Your task to perform on an android device: See recent photos Image 0: 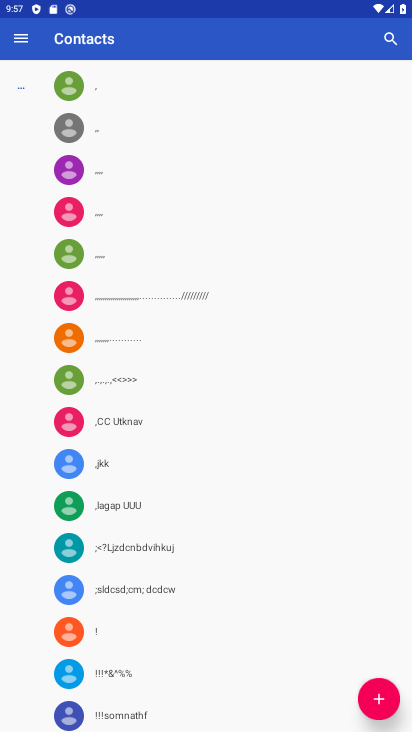
Step 0: press home button
Your task to perform on an android device: See recent photos Image 1: 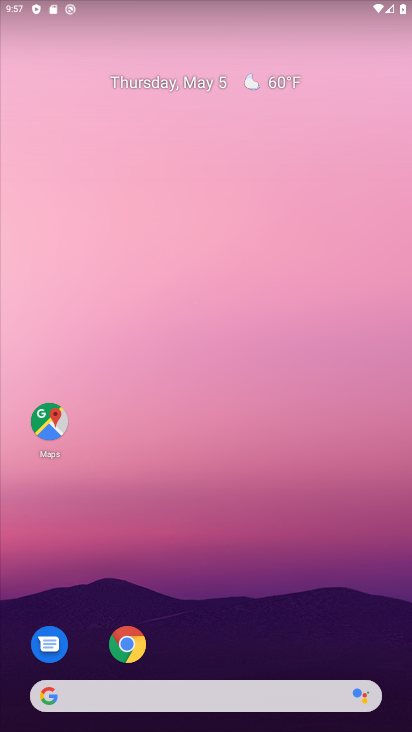
Step 1: drag from (392, 640) to (324, 147)
Your task to perform on an android device: See recent photos Image 2: 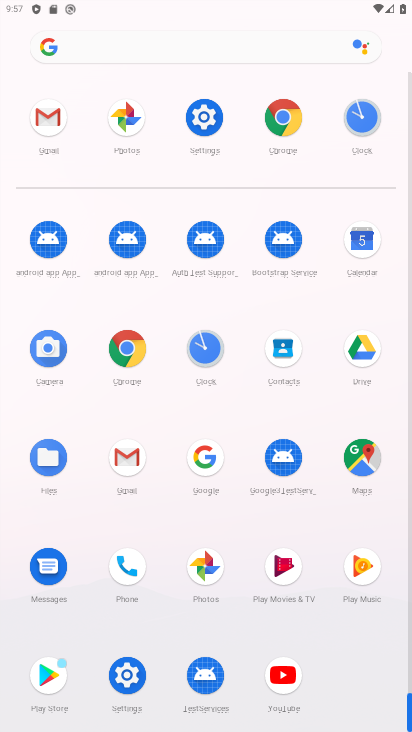
Step 2: click (211, 569)
Your task to perform on an android device: See recent photos Image 3: 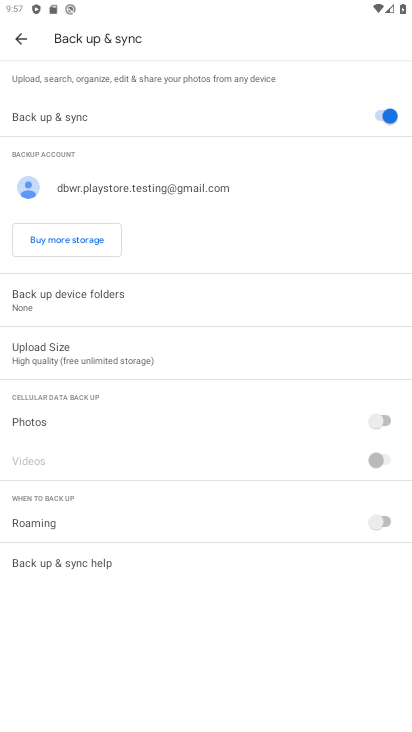
Step 3: click (15, 39)
Your task to perform on an android device: See recent photos Image 4: 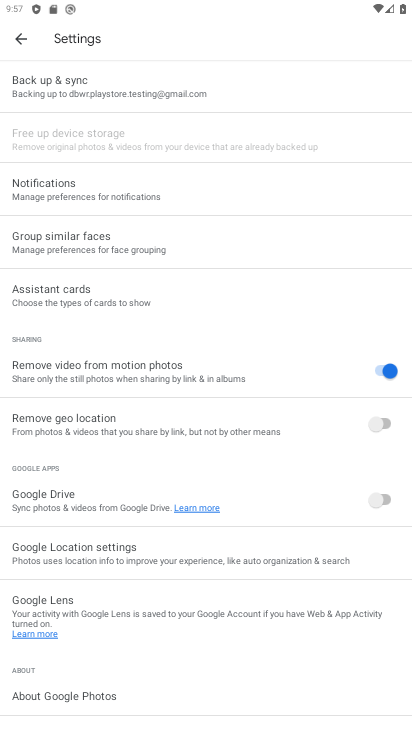
Step 4: click (16, 37)
Your task to perform on an android device: See recent photos Image 5: 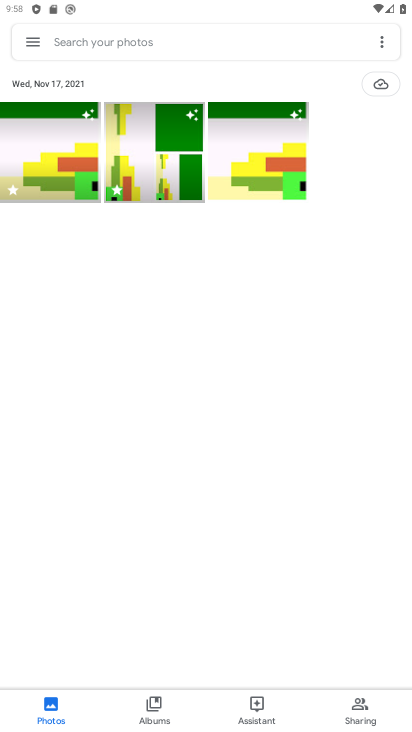
Step 5: task complete